Your task to perform on an android device: Search for custom wallets on Etsy. Image 0: 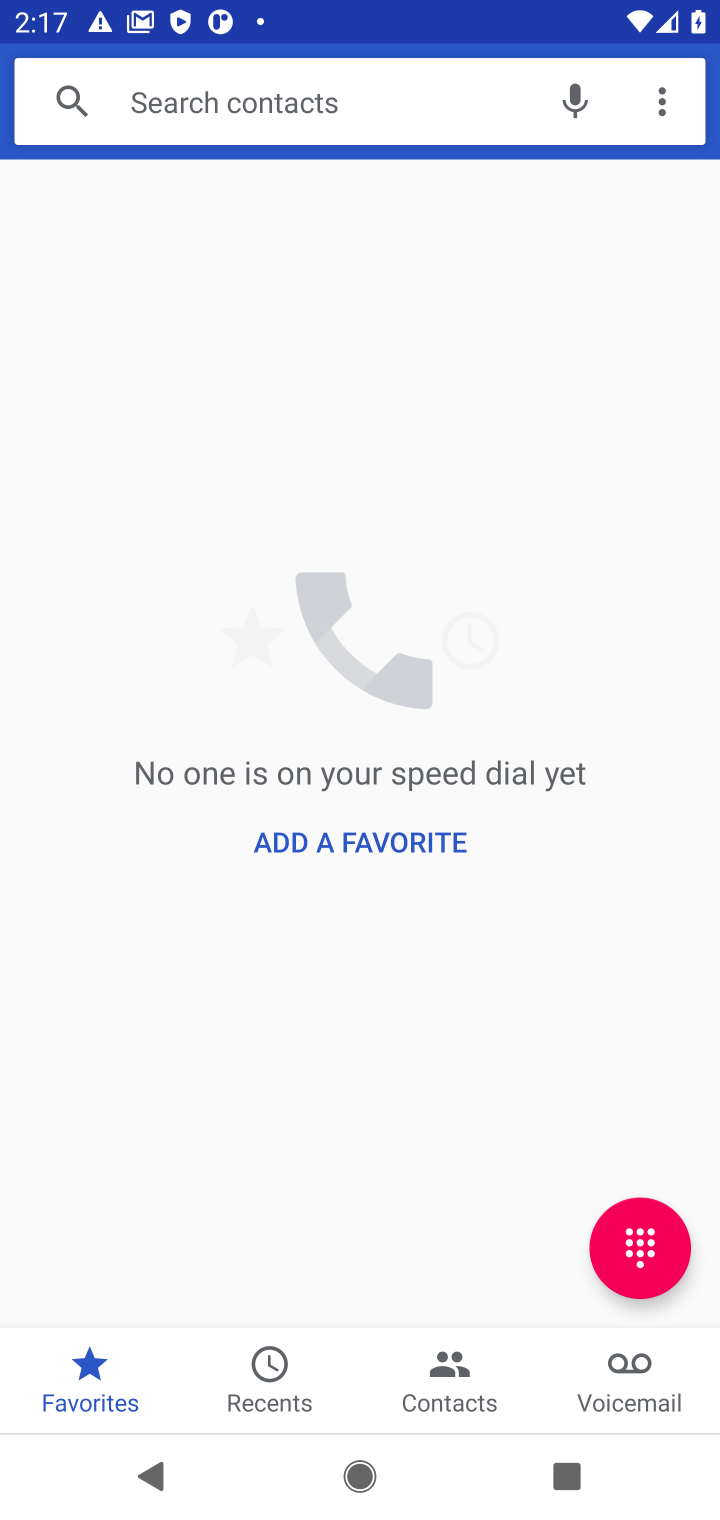
Step 0: press home button
Your task to perform on an android device: Search for custom wallets on Etsy. Image 1: 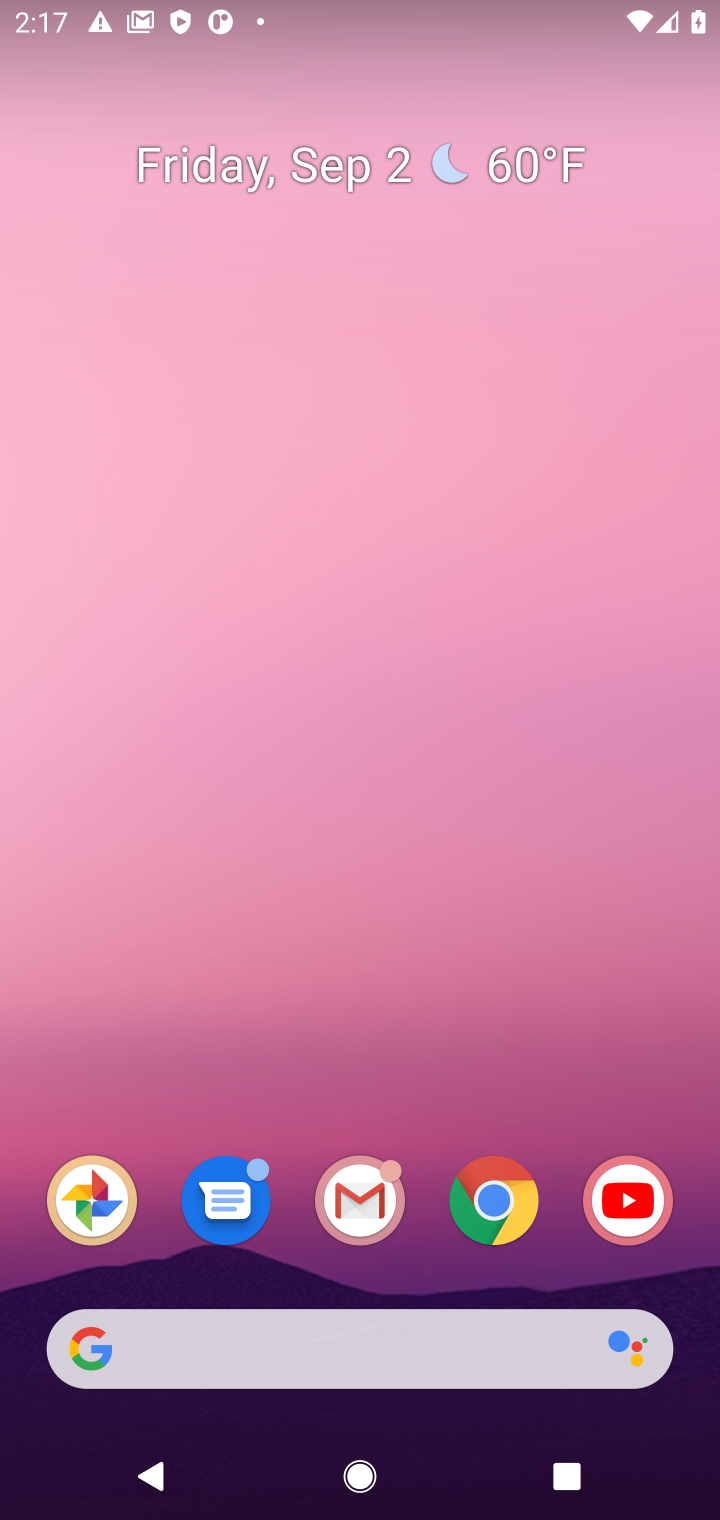
Step 1: click (511, 1190)
Your task to perform on an android device: Search for custom wallets on Etsy. Image 2: 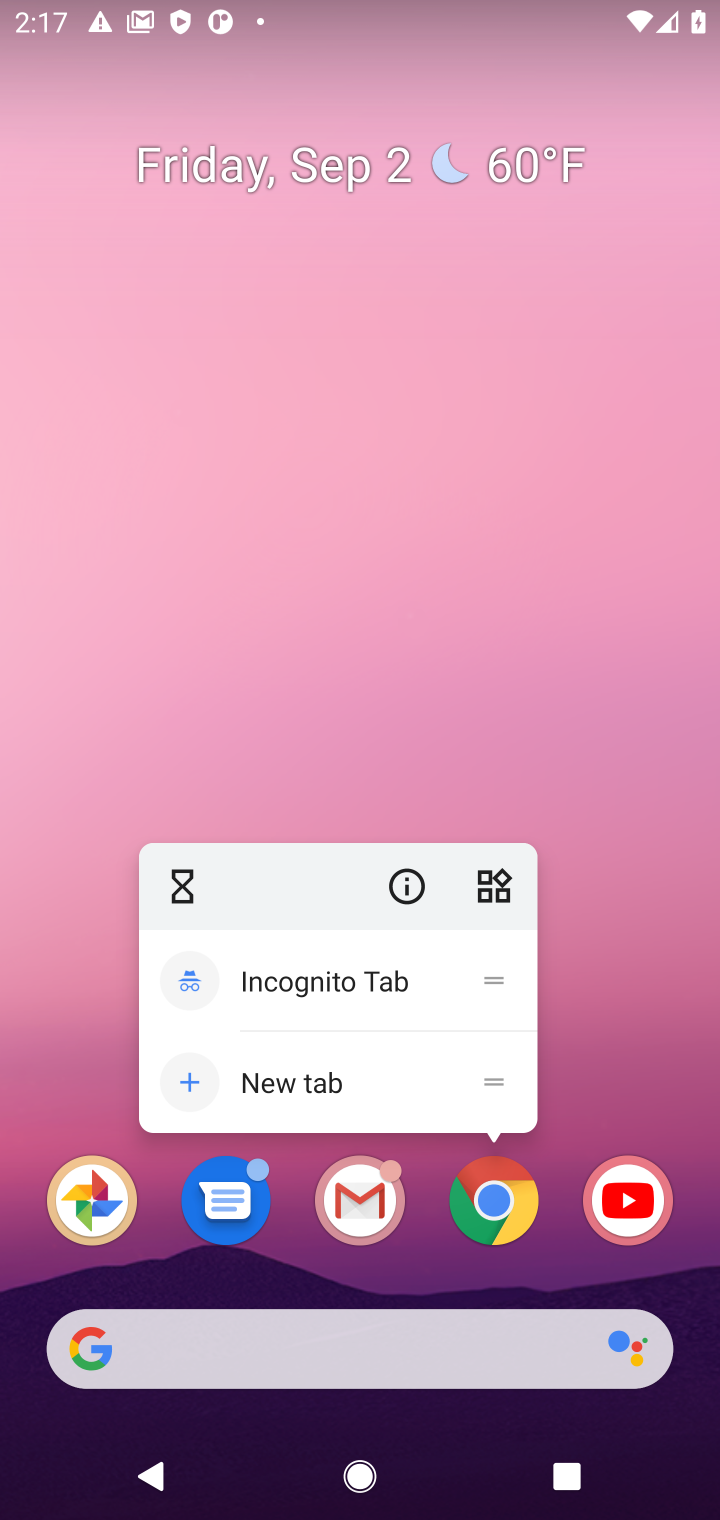
Step 2: click (495, 1198)
Your task to perform on an android device: Search for custom wallets on Etsy. Image 3: 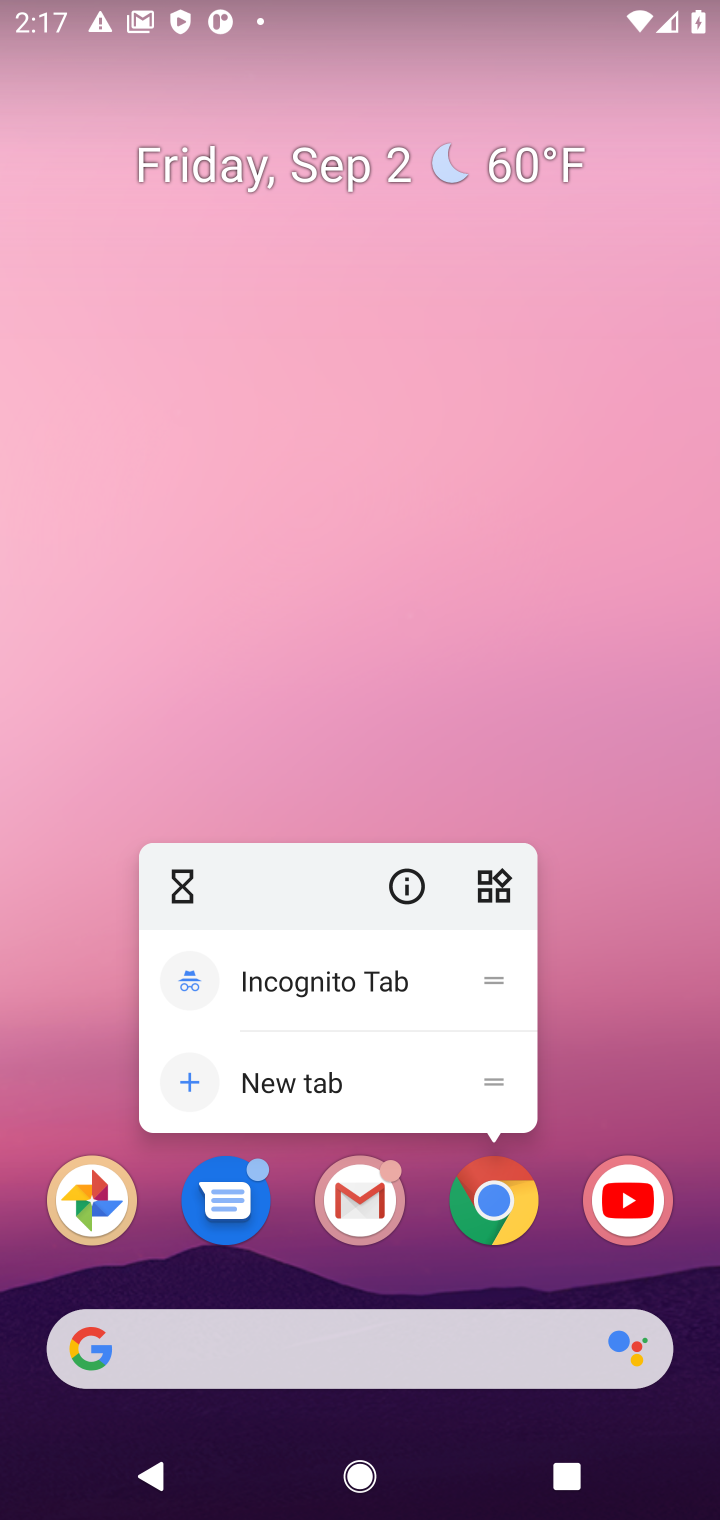
Step 3: click (495, 1198)
Your task to perform on an android device: Search for custom wallets on Etsy. Image 4: 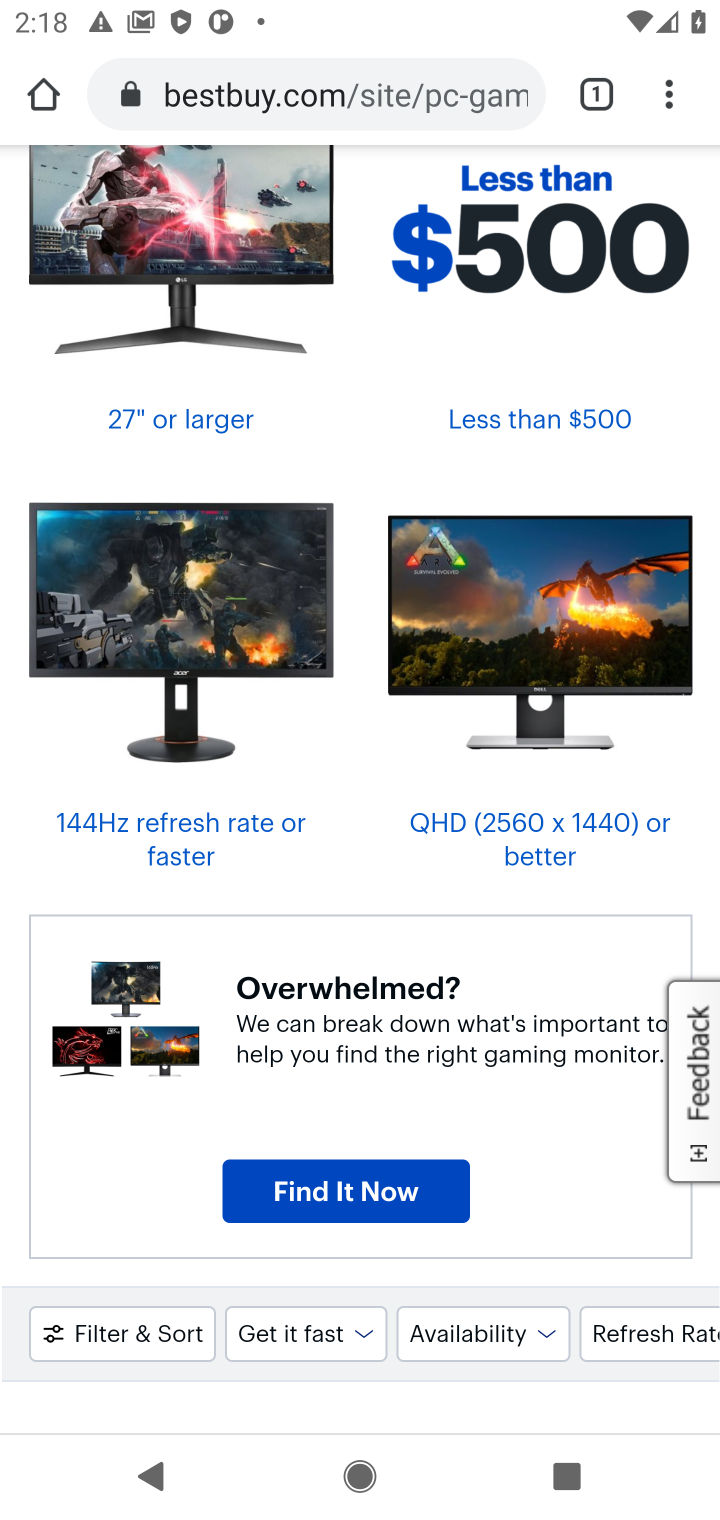
Step 4: click (429, 79)
Your task to perform on an android device: Search for custom wallets on Etsy. Image 5: 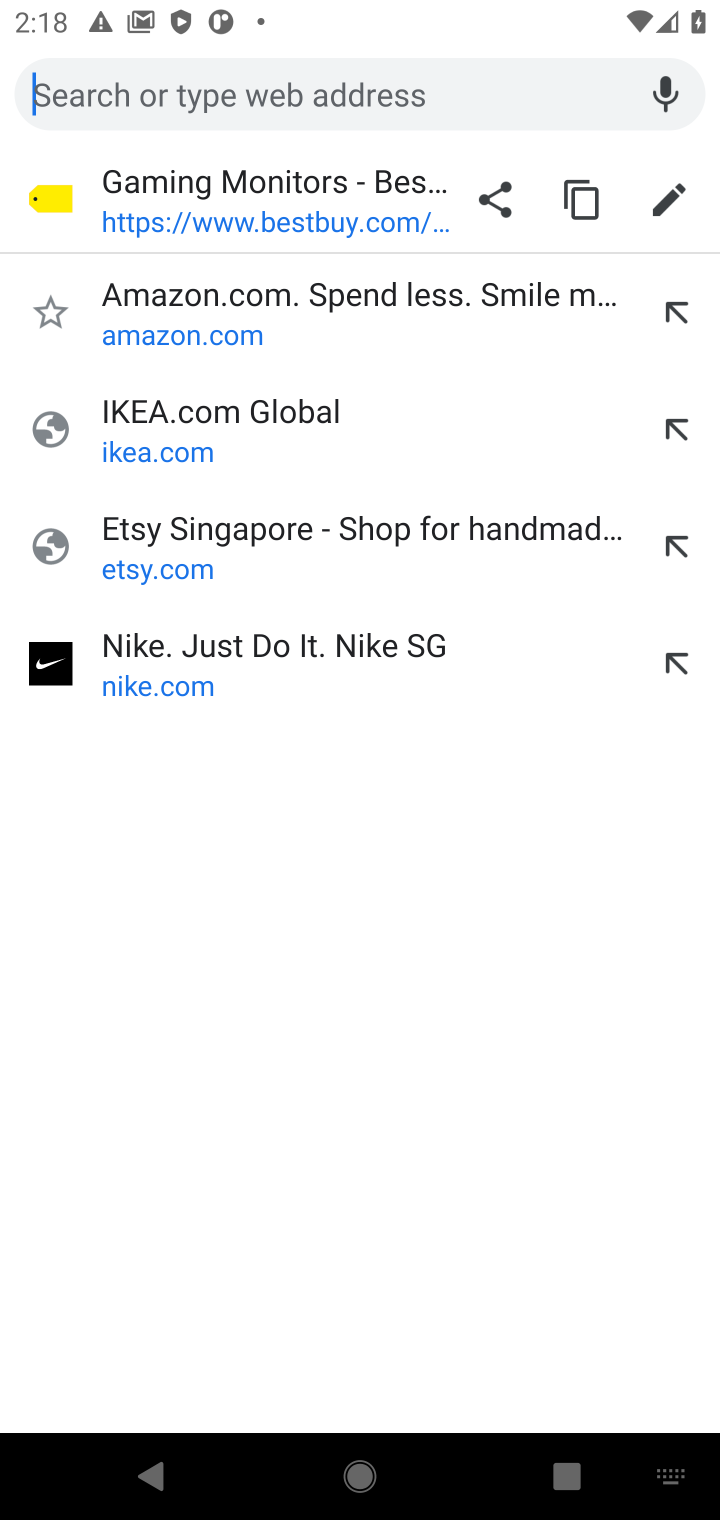
Step 5: click (283, 86)
Your task to perform on an android device: Search for custom wallets on Etsy. Image 6: 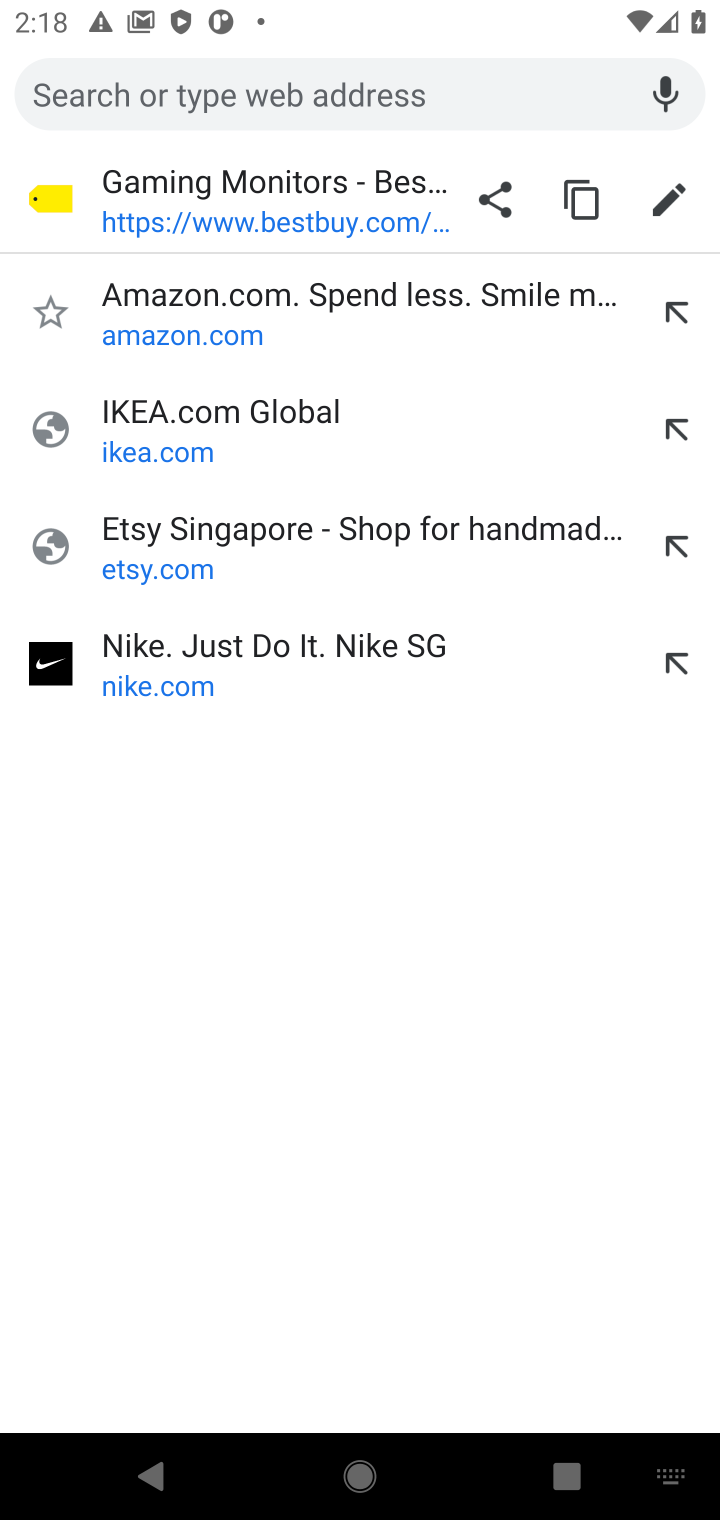
Step 6: type "Etsy"
Your task to perform on an android device: Search for custom wallets on Etsy. Image 7: 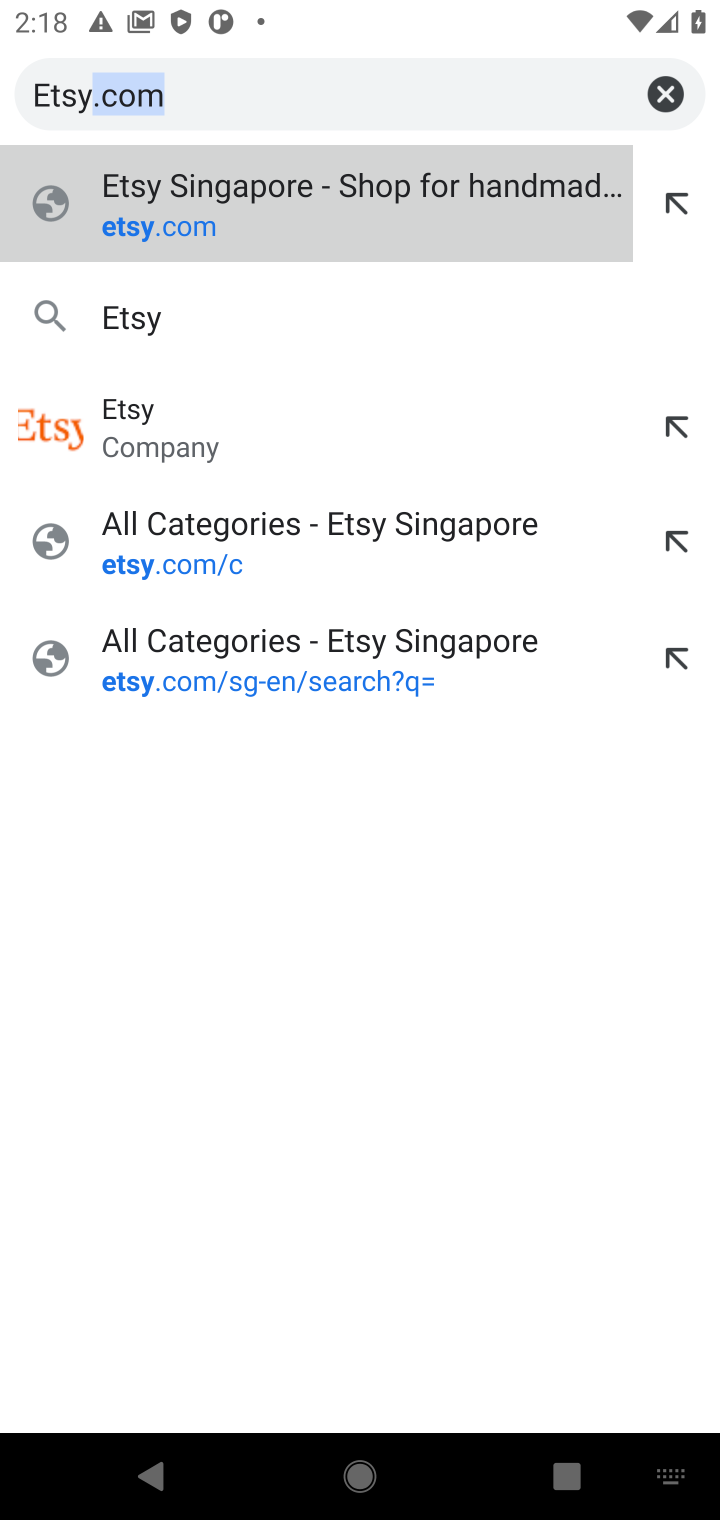
Step 7: press enter
Your task to perform on an android device: Search for custom wallets on Etsy. Image 8: 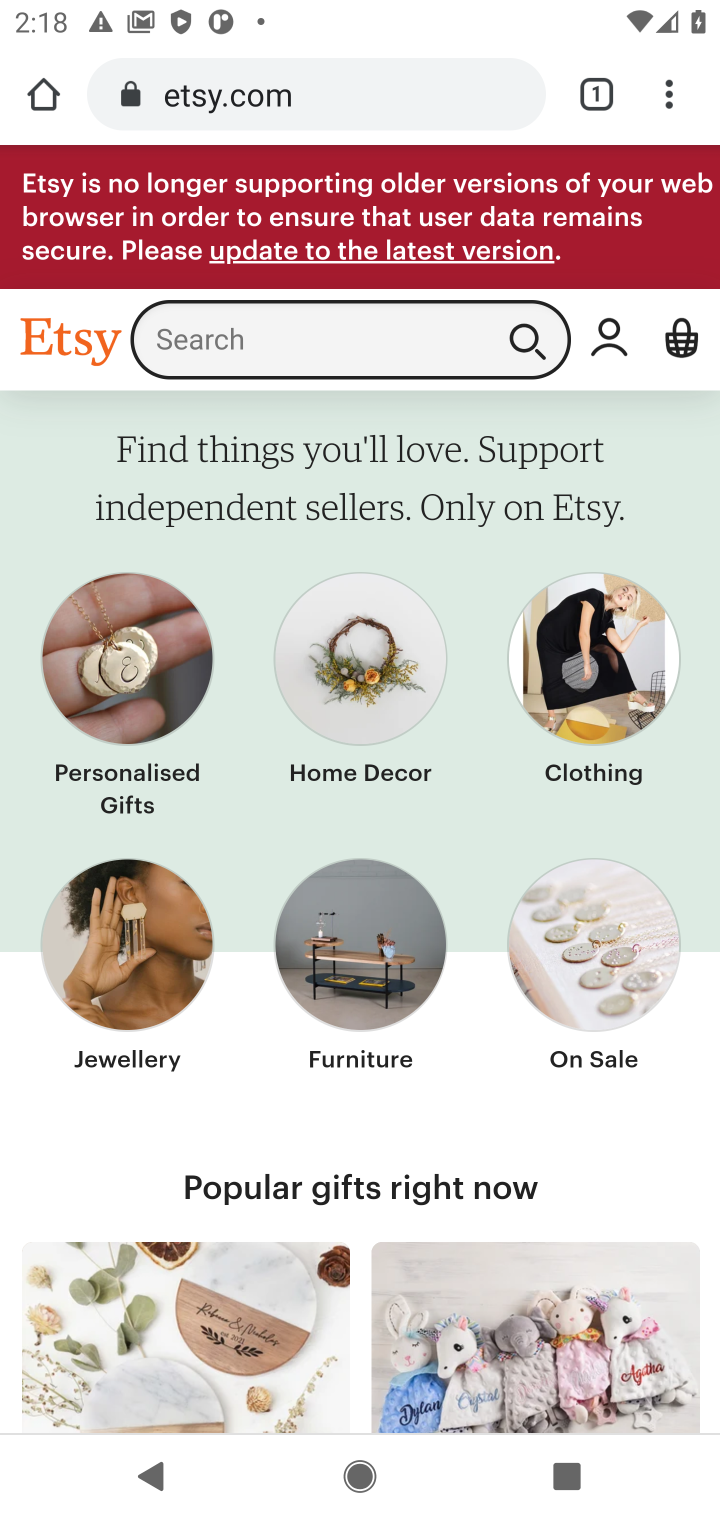
Step 8: click (320, 333)
Your task to perform on an android device: Search for custom wallets on Etsy. Image 9: 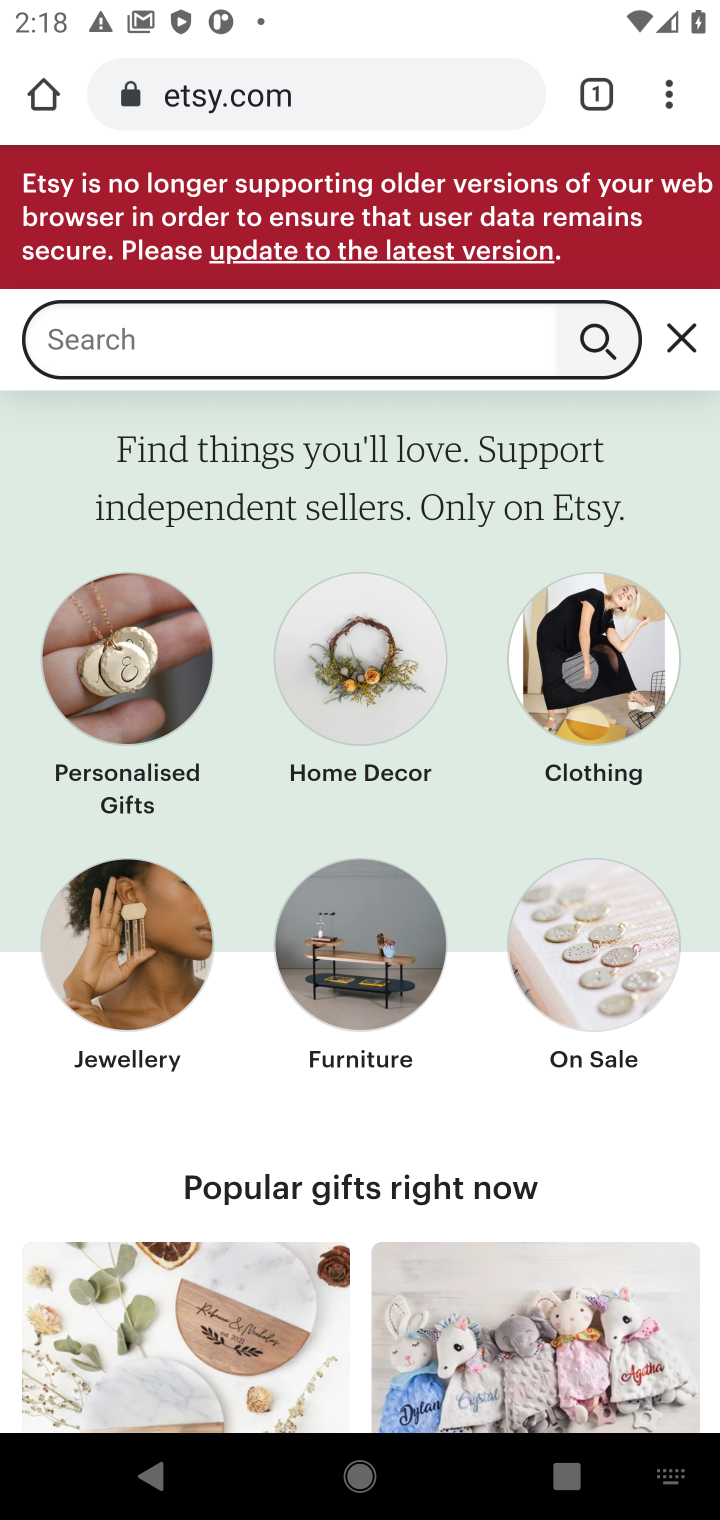
Step 9: type " custom wallets"
Your task to perform on an android device: Search for custom wallets on Etsy. Image 10: 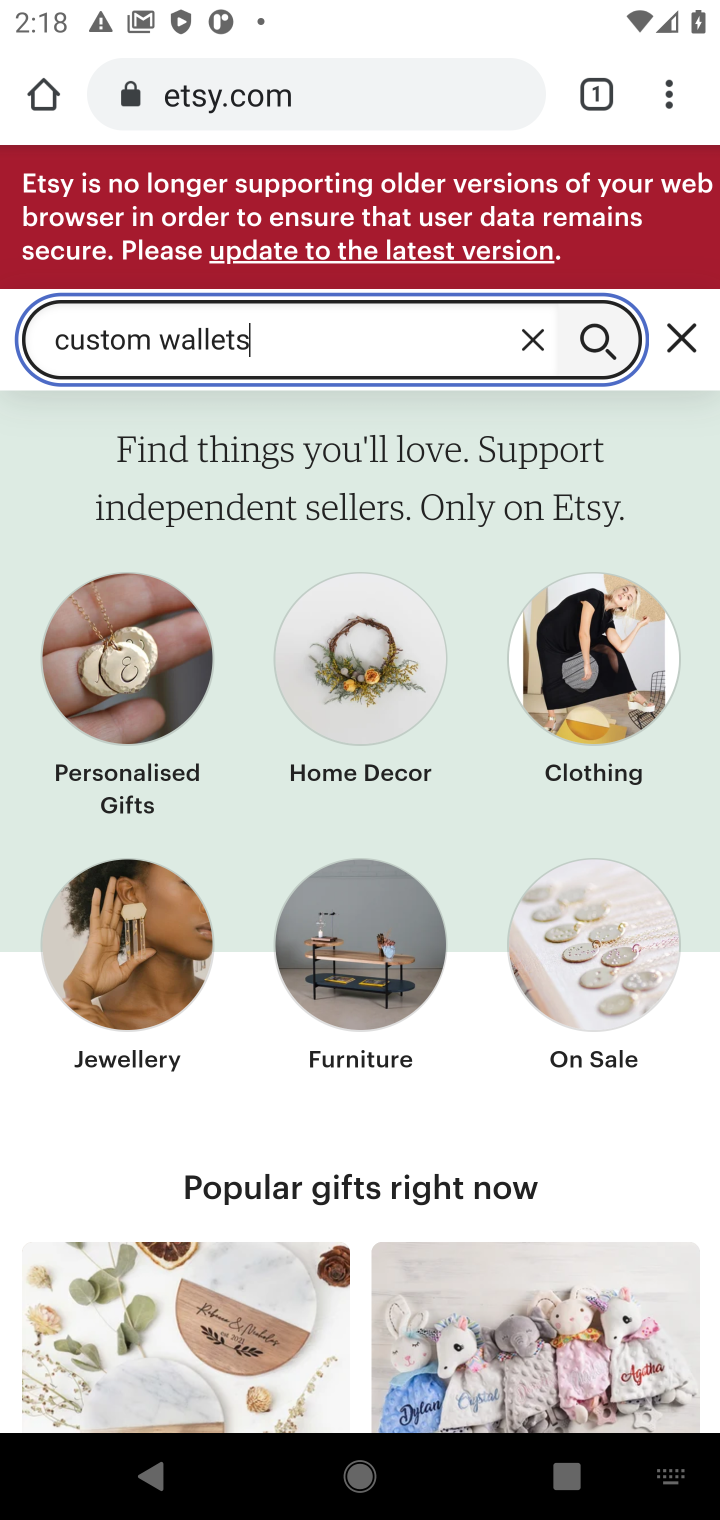
Step 10: press enter
Your task to perform on an android device: Search for custom wallets on Etsy. Image 11: 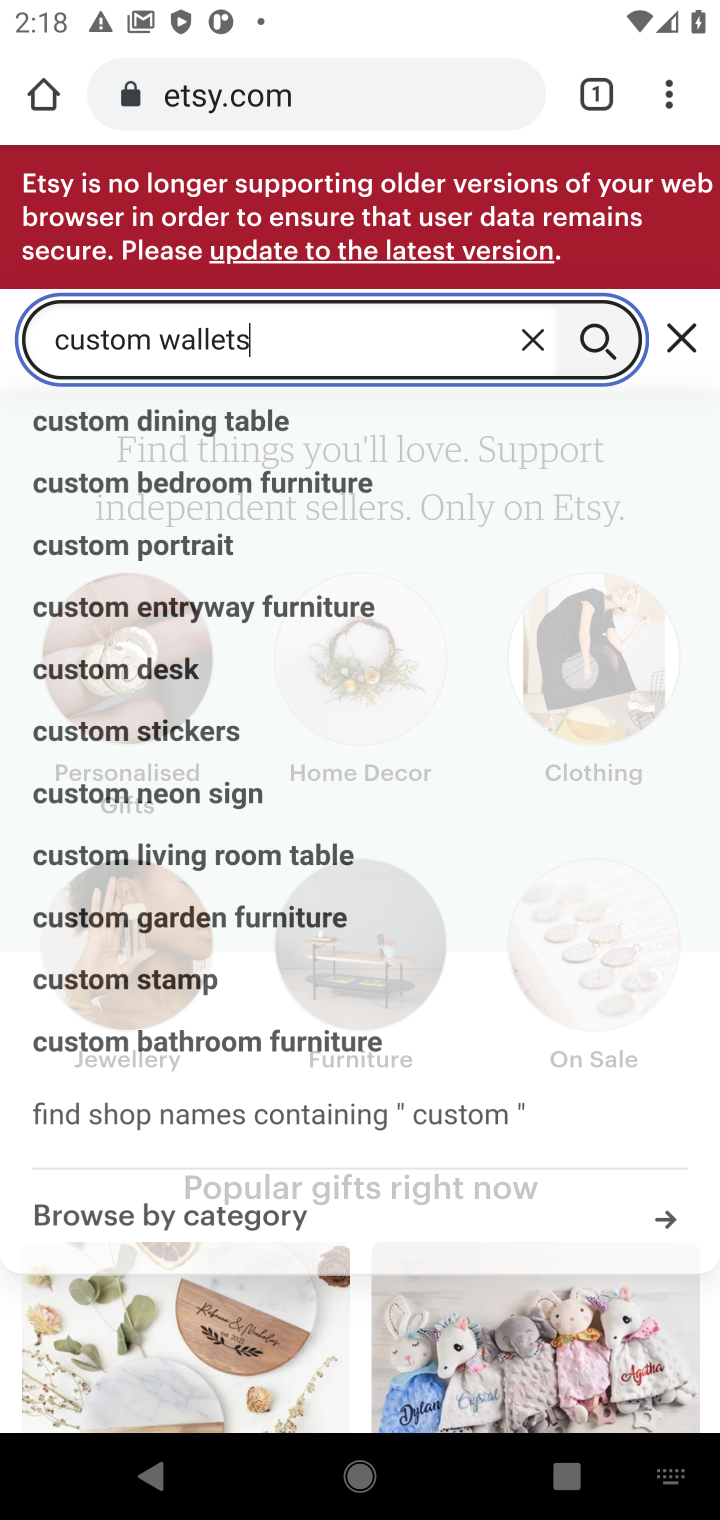
Step 11: click (594, 340)
Your task to perform on an android device: Search for custom wallets on Etsy. Image 12: 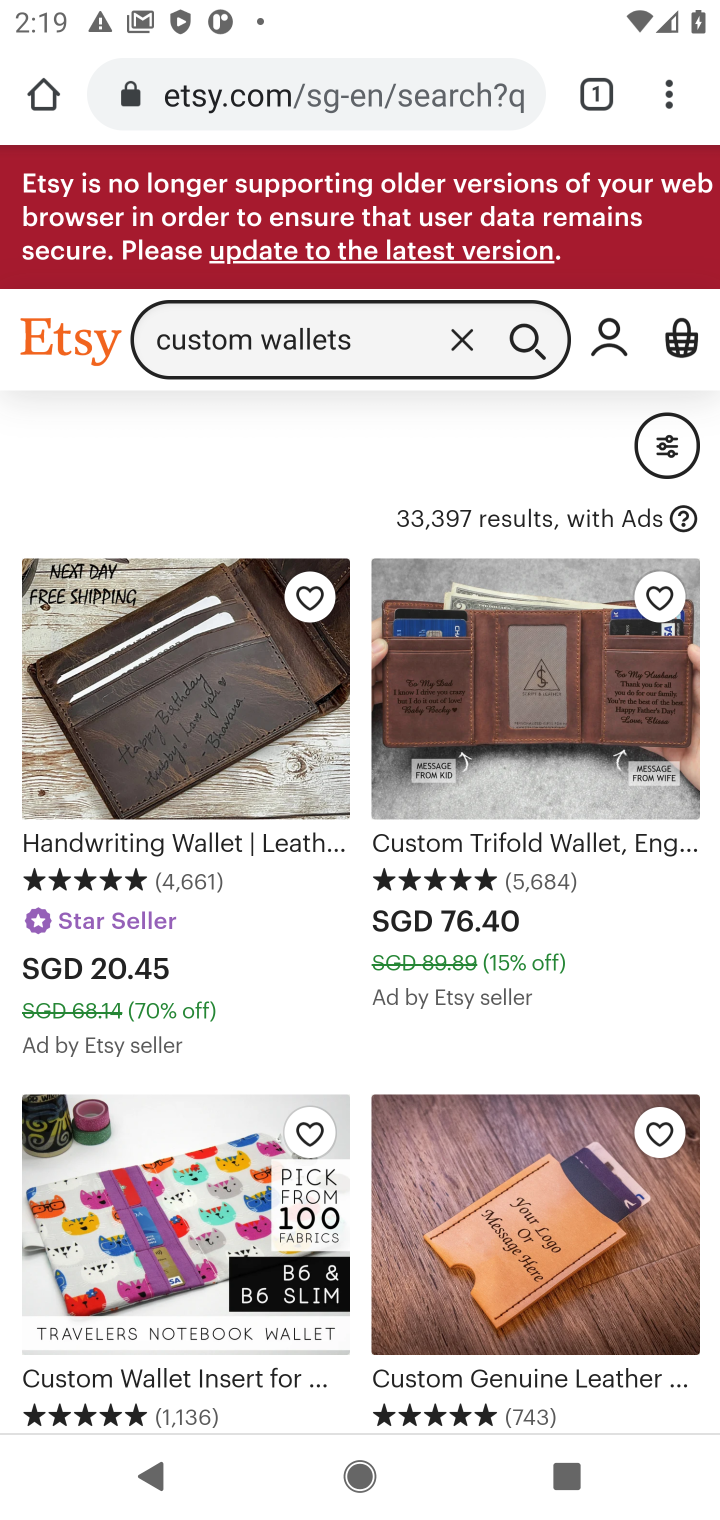
Step 12: click (406, 547)
Your task to perform on an android device: Search for custom wallets on Etsy. Image 13: 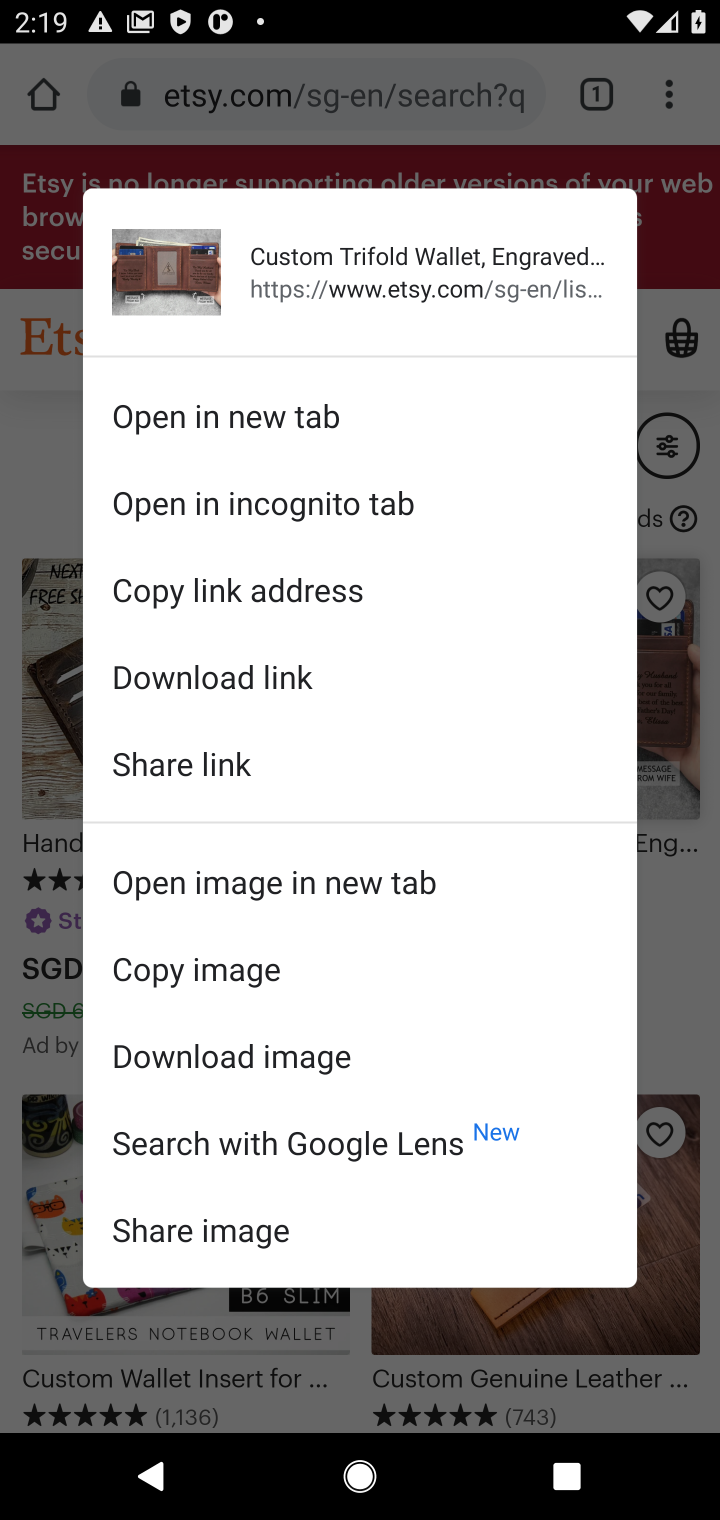
Step 13: click (656, 916)
Your task to perform on an android device: Search for custom wallets on Etsy. Image 14: 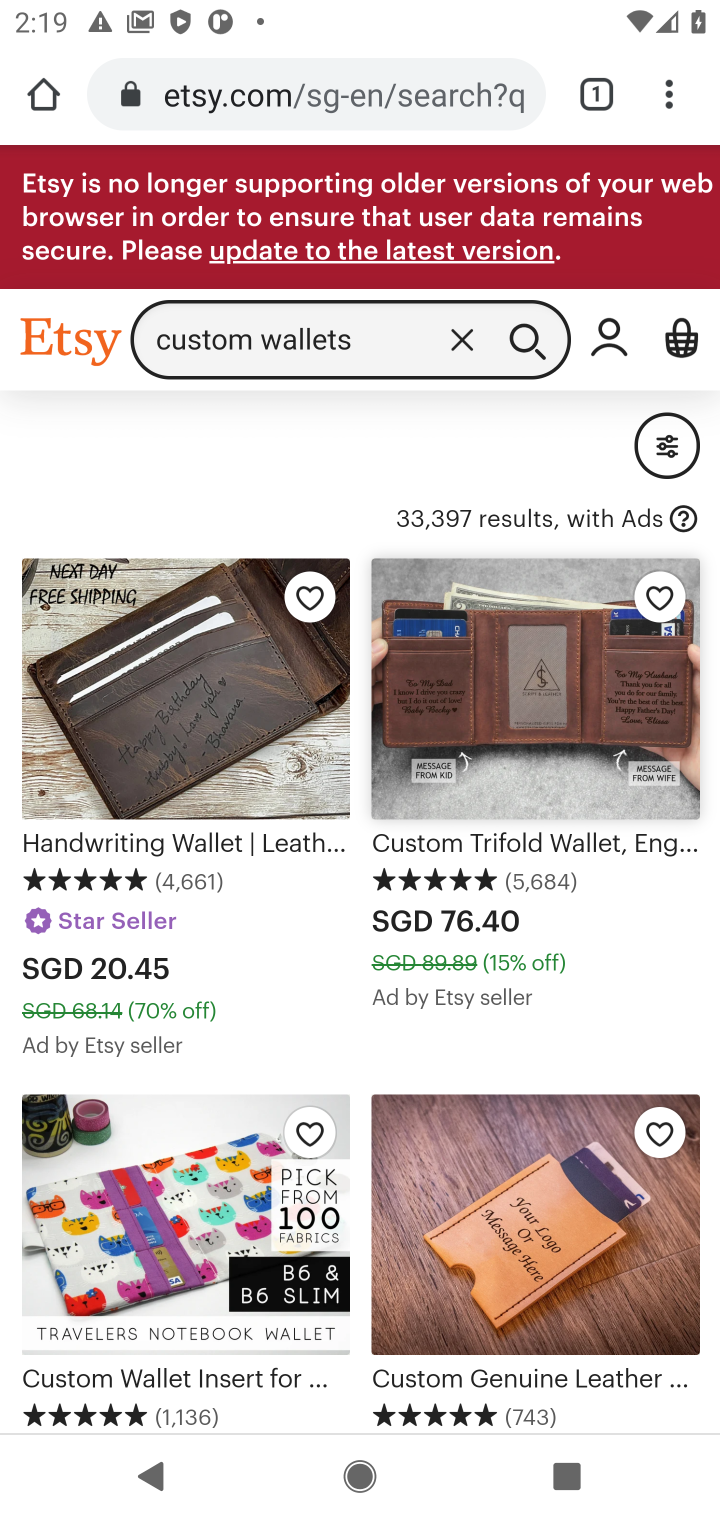
Step 14: task complete